Your task to perform on an android device: Open calendar and show me the third week of next month Image 0: 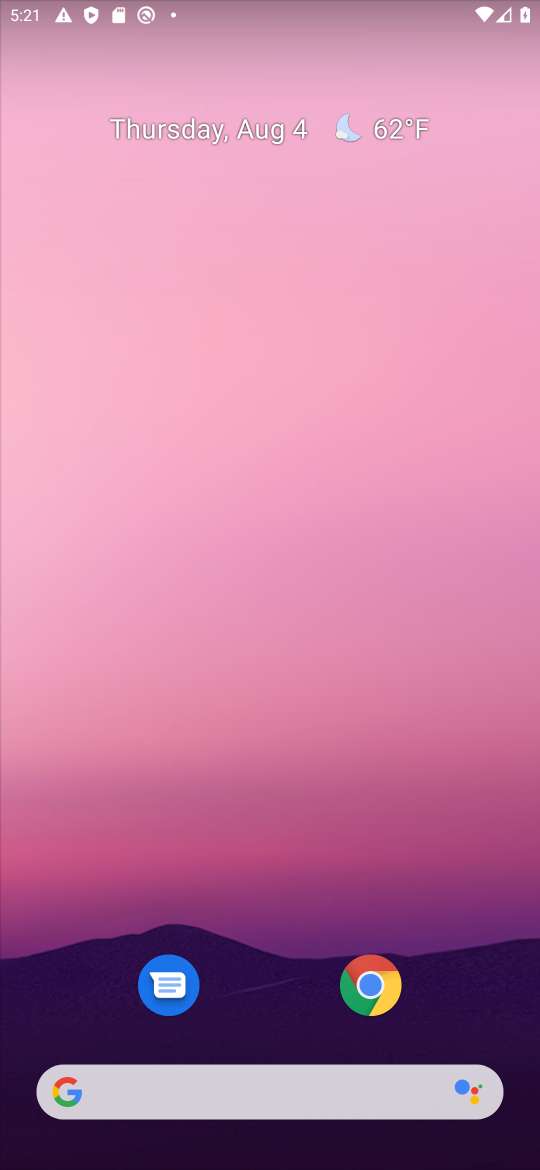
Step 0: drag from (300, 1067) to (367, 219)
Your task to perform on an android device: Open calendar and show me the third week of next month Image 1: 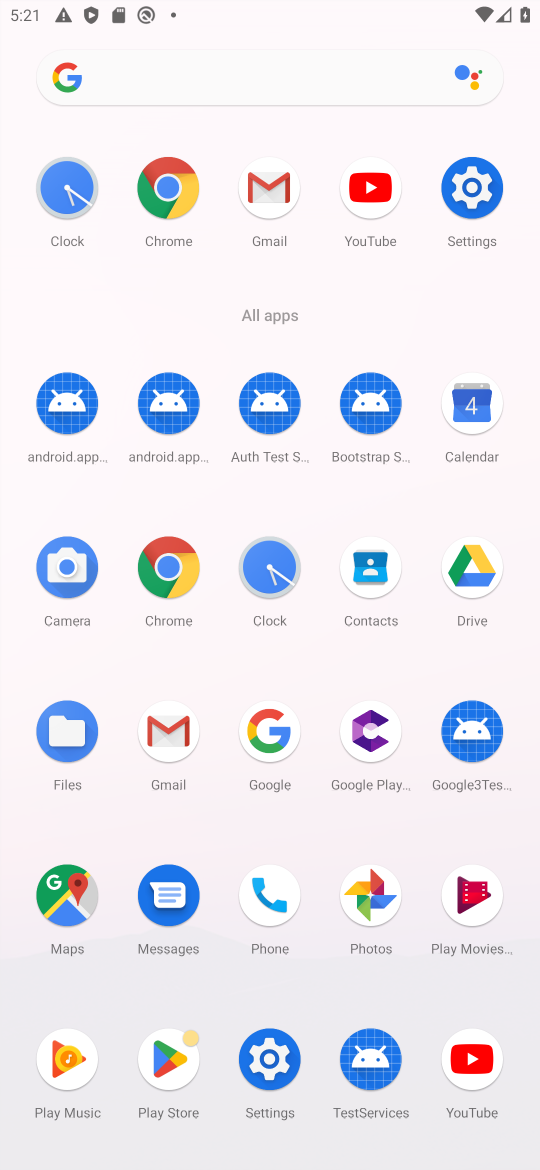
Step 1: click (355, 592)
Your task to perform on an android device: Open calendar and show me the third week of next month Image 2: 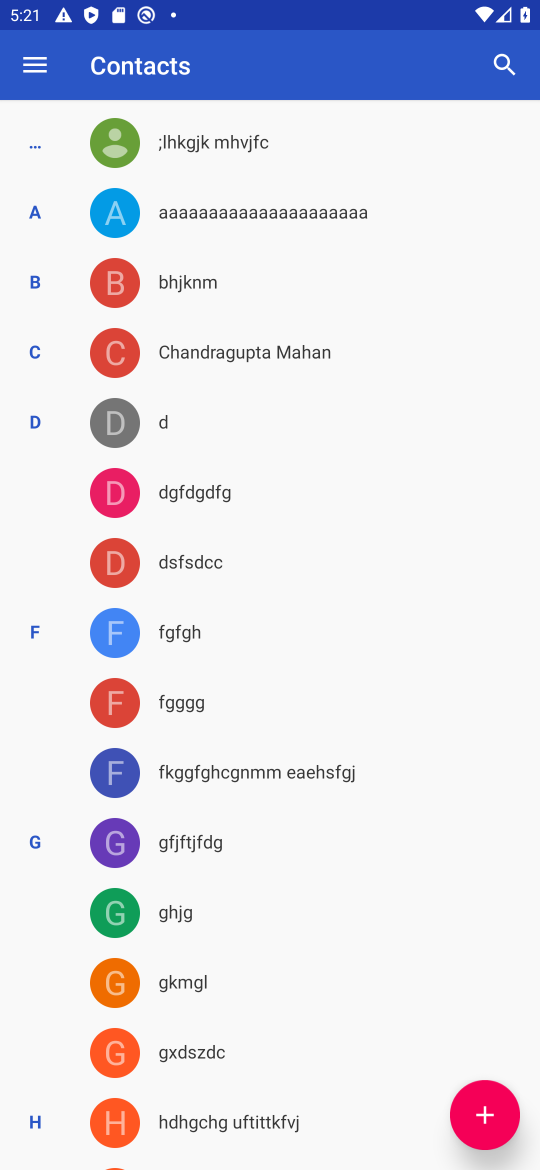
Step 2: press home button
Your task to perform on an android device: Open calendar and show me the third week of next month Image 3: 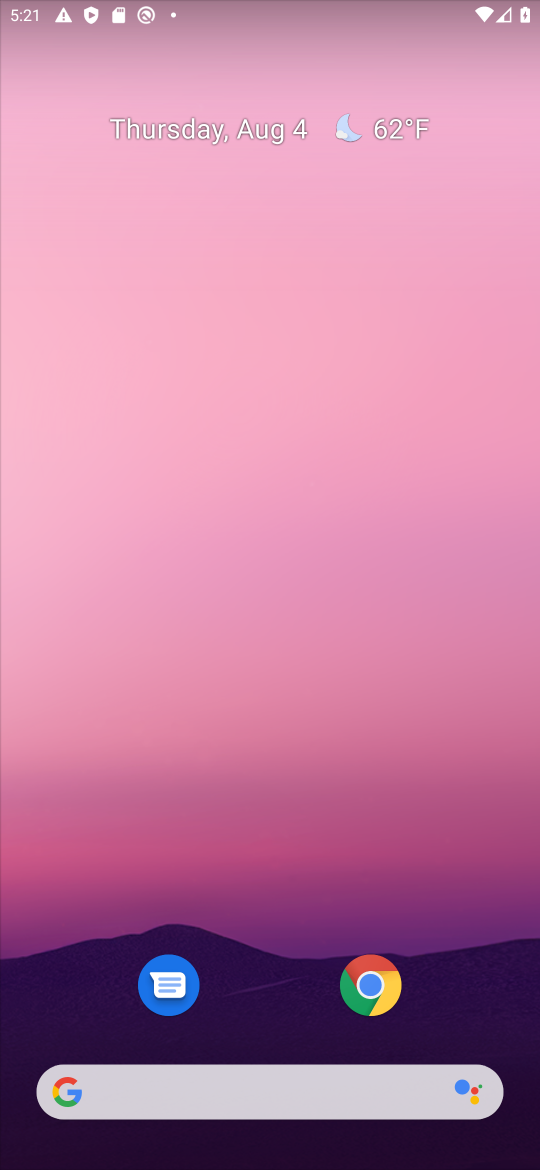
Step 3: drag from (239, 1068) to (337, 36)
Your task to perform on an android device: Open calendar and show me the third week of next month Image 4: 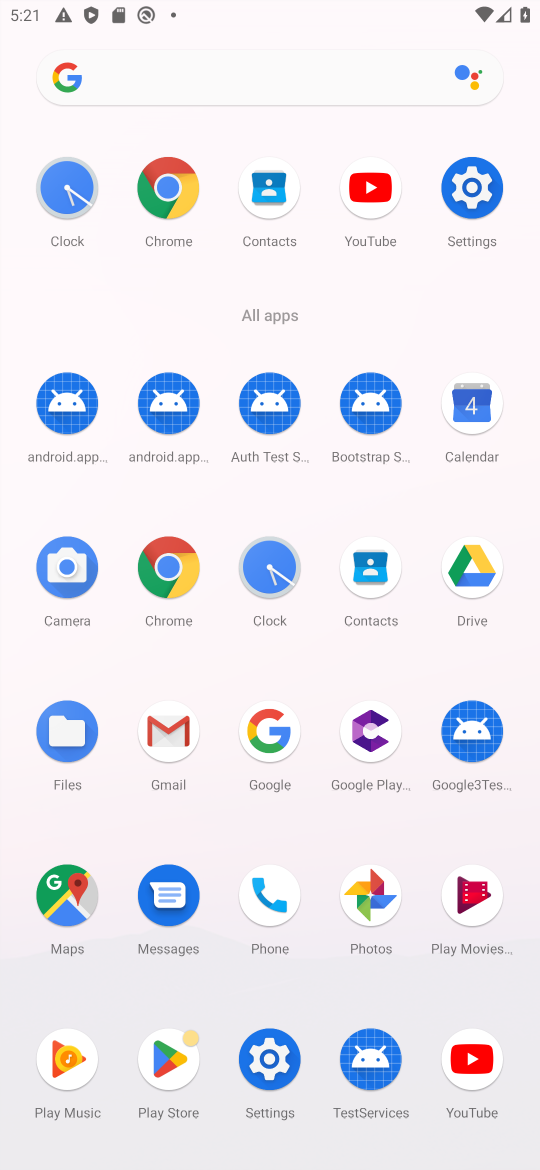
Step 4: click (466, 410)
Your task to perform on an android device: Open calendar and show me the third week of next month Image 5: 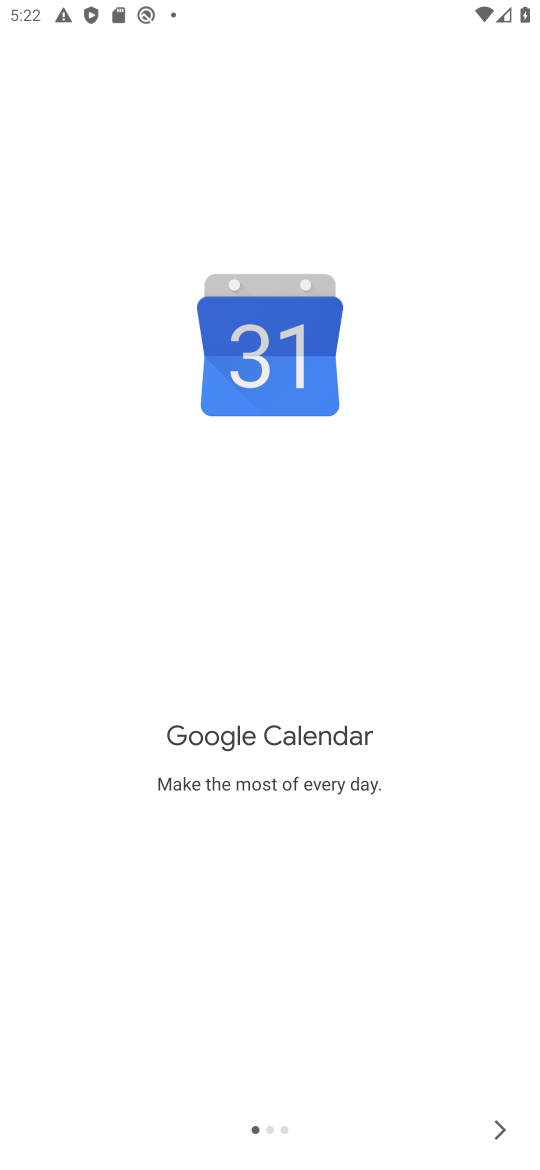
Step 5: click (500, 1147)
Your task to perform on an android device: Open calendar and show me the third week of next month Image 6: 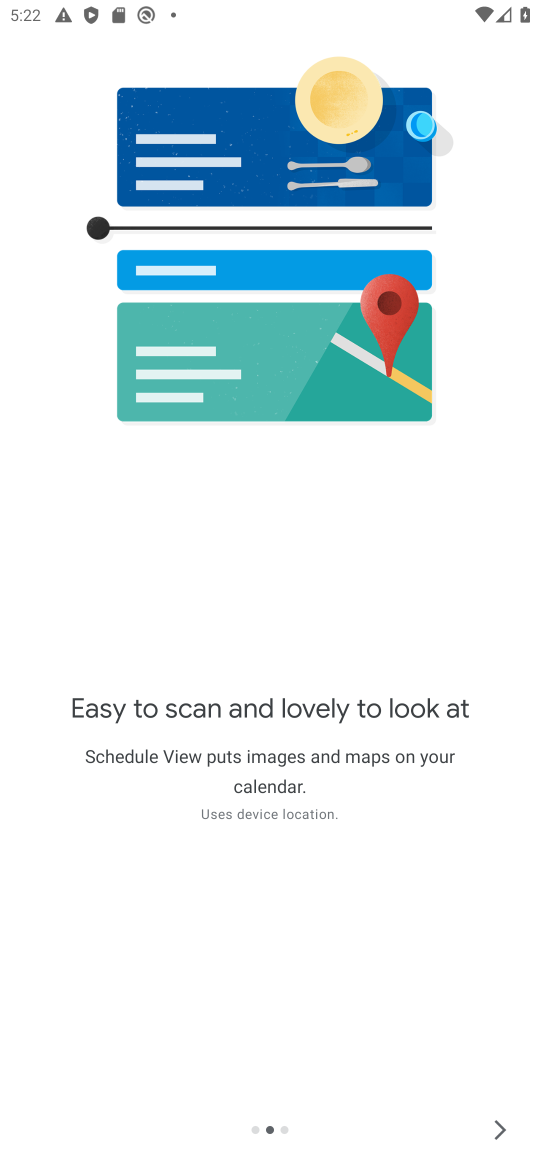
Step 6: click (500, 1120)
Your task to perform on an android device: Open calendar and show me the third week of next month Image 7: 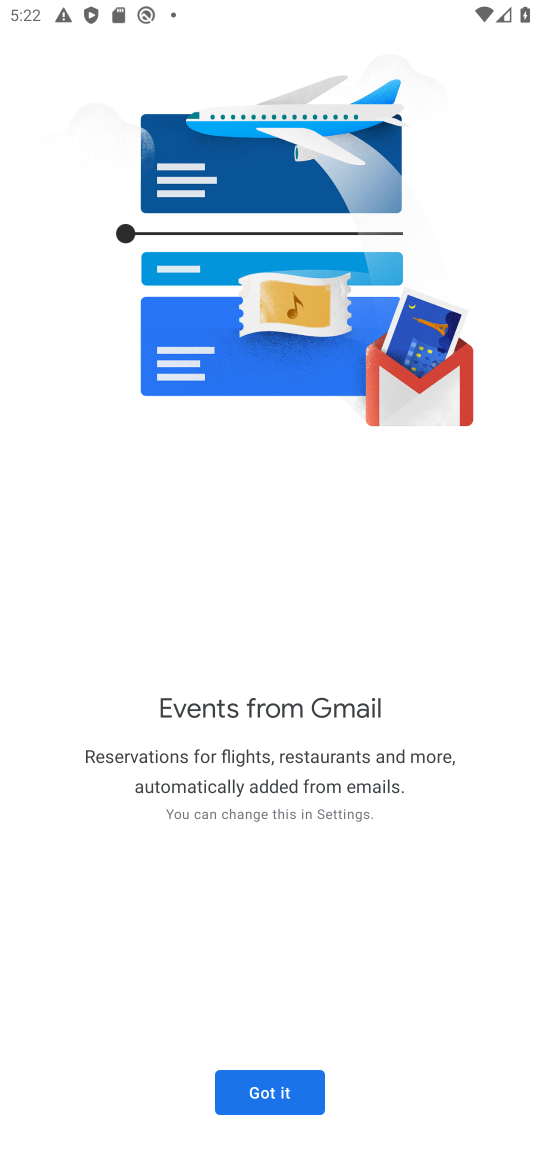
Step 7: click (300, 1104)
Your task to perform on an android device: Open calendar and show me the third week of next month Image 8: 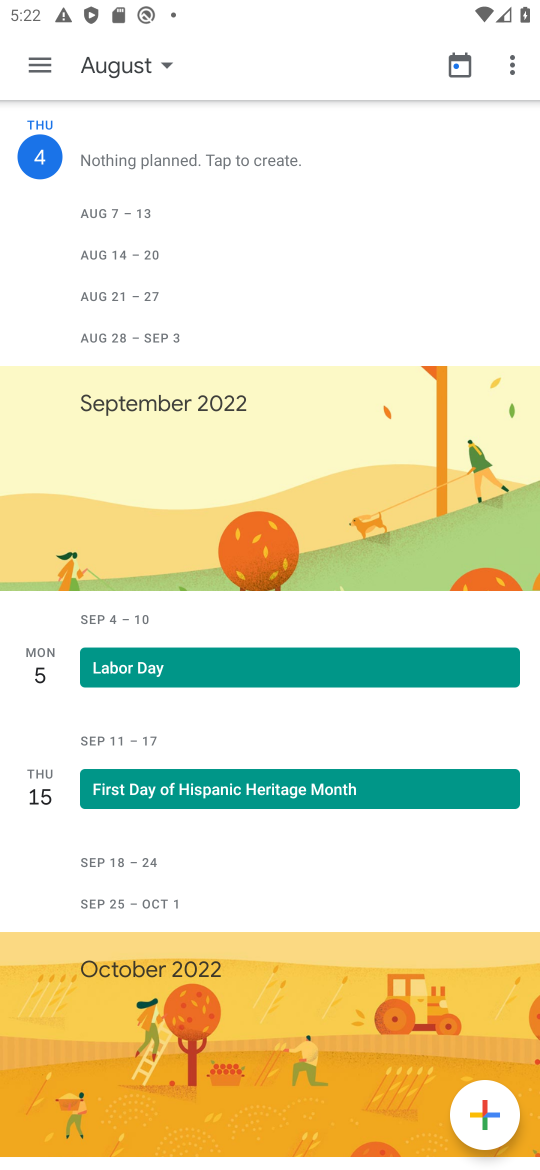
Step 8: click (24, 66)
Your task to perform on an android device: Open calendar and show me the third week of next month Image 9: 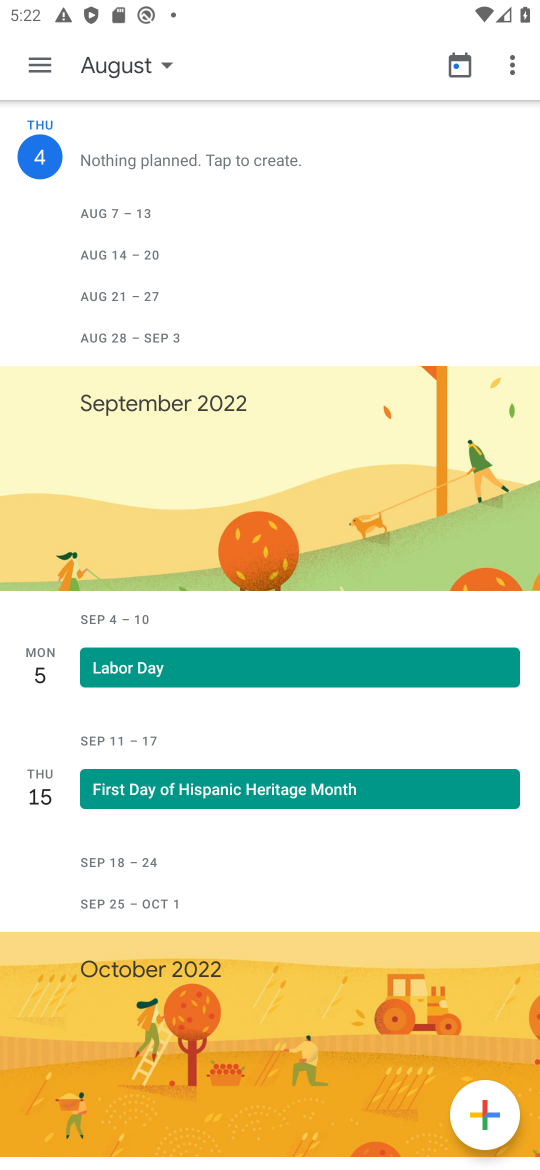
Step 9: click (44, 68)
Your task to perform on an android device: Open calendar and show me the third week of next month Image 10: 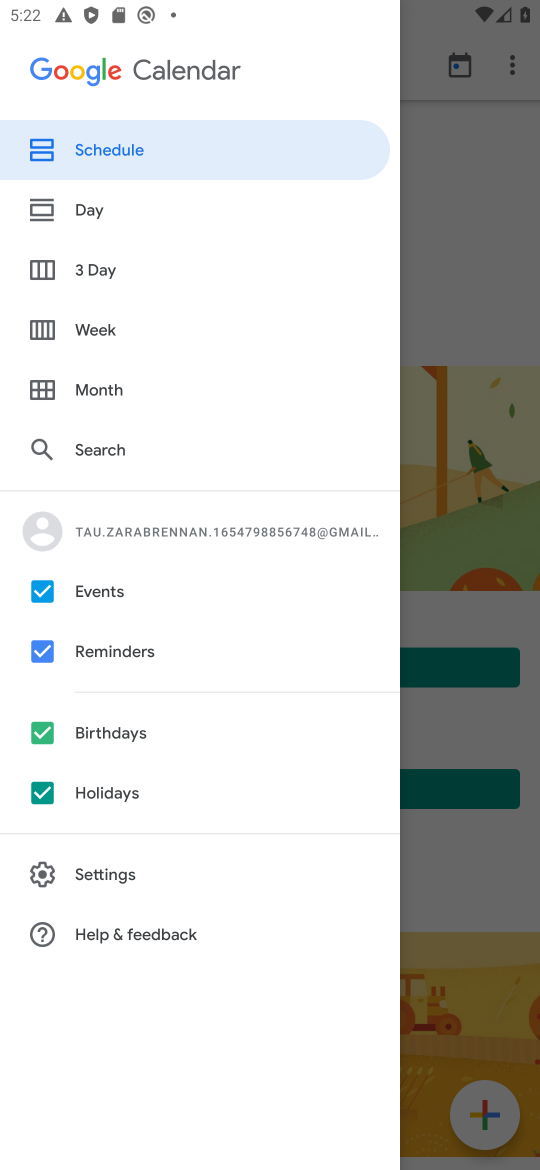
Step 10: click (128, 400)
Your task to perform on an android device: Open calendar and show me the third week of next month Image 11: 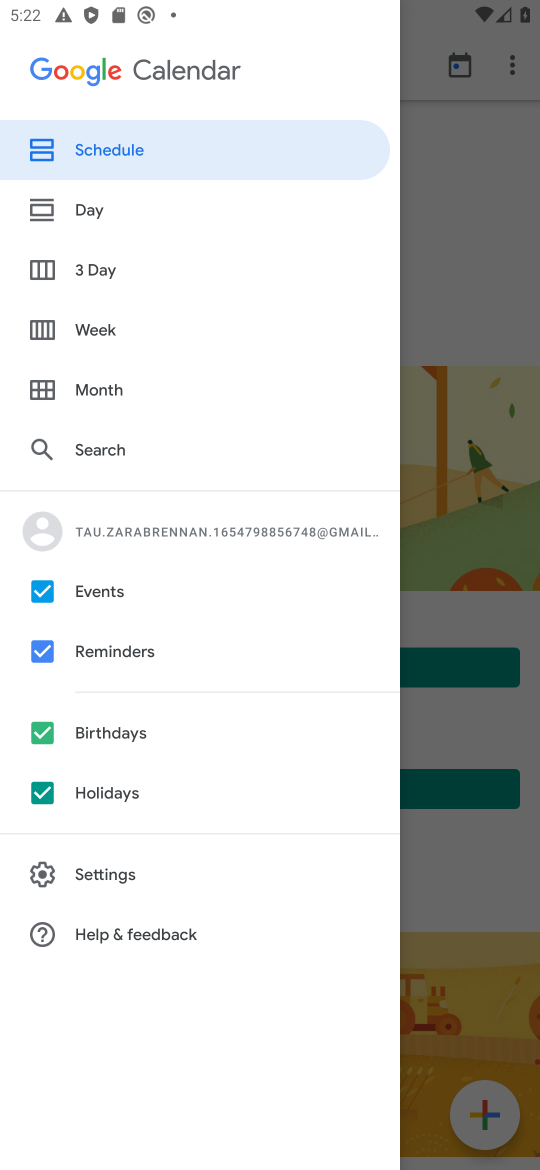
Step 11: click (112, 402)
Your task to perform on an android device: Open calendar and show me the third week of next month Image 12: 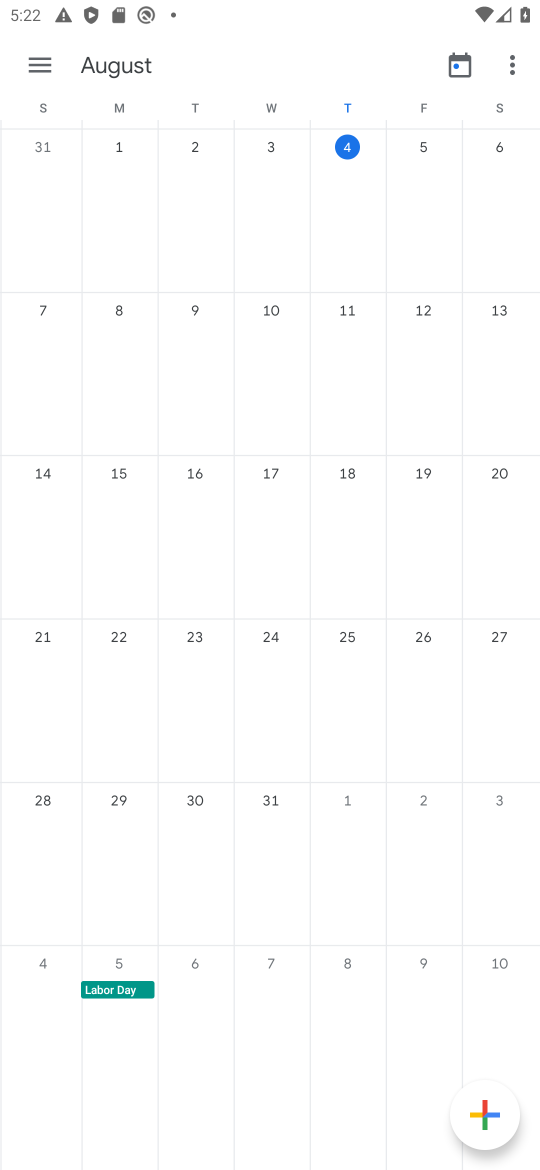
Step 12: task complete